Your task to perform on an android device: Search for seafood restaurants on Google Maps Image 0: 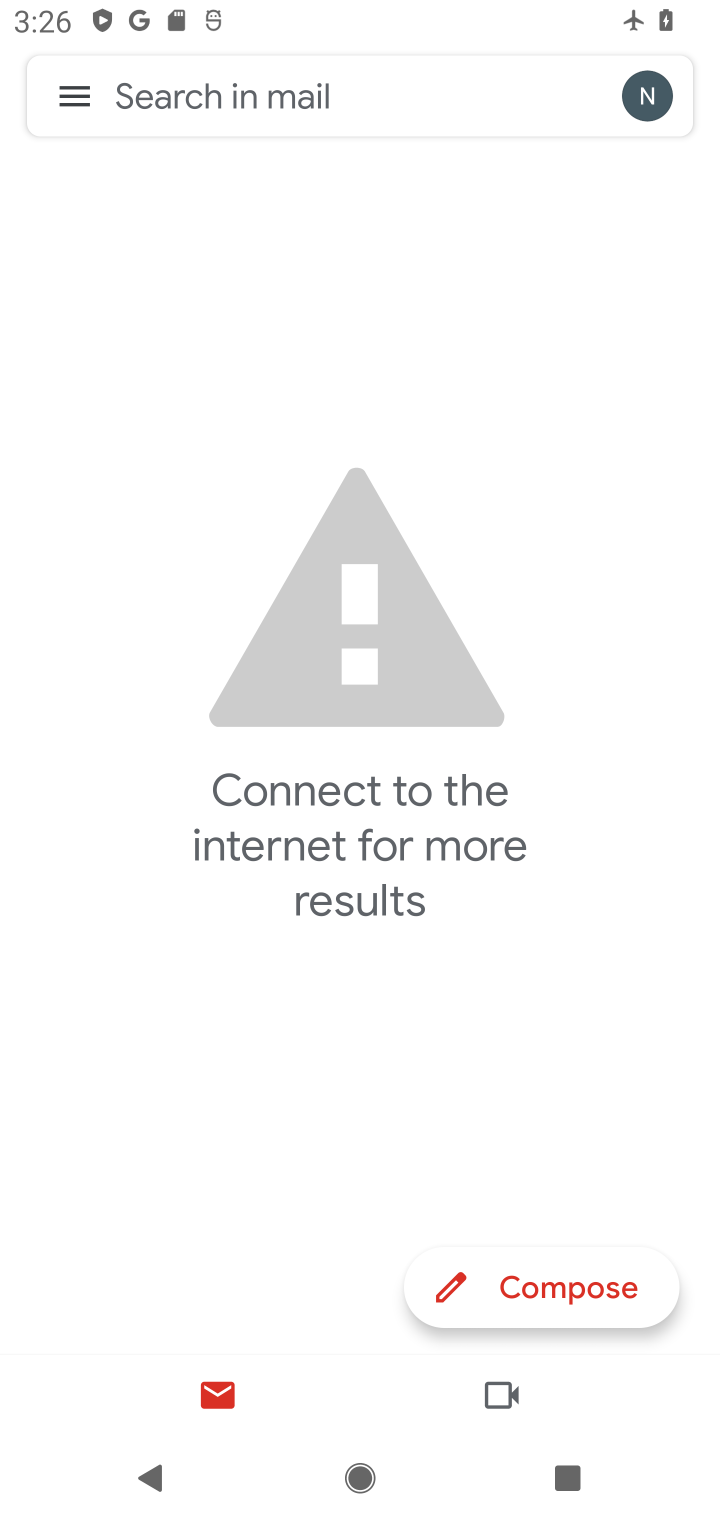
Step 0: press home button
Your task to perform on an android device: Search for seafood restaurants on Google Maps Image 1: 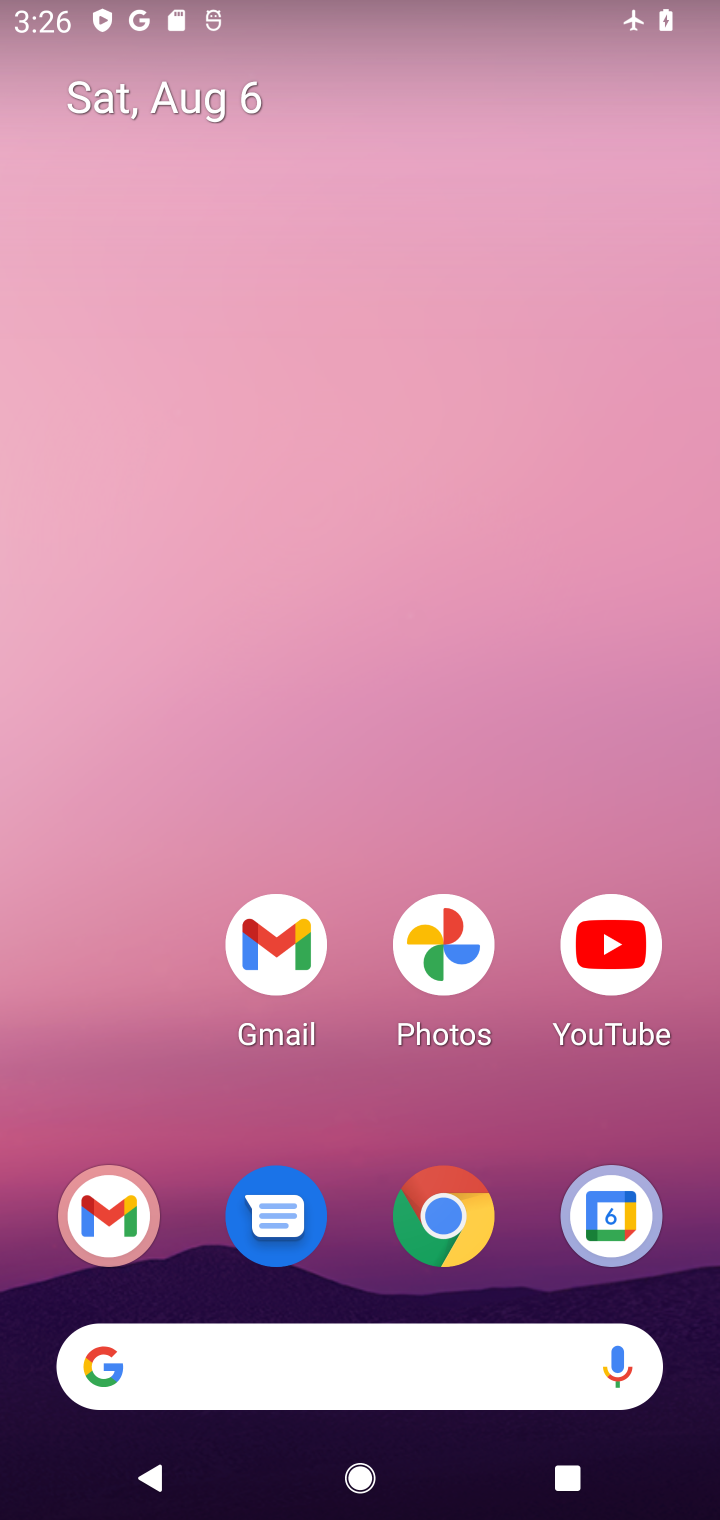
Step 1: drag from (540, 1126) to (499, 222)
Your task to perform on an android device: Search for seafood restaurants on Google Maps Image 2: 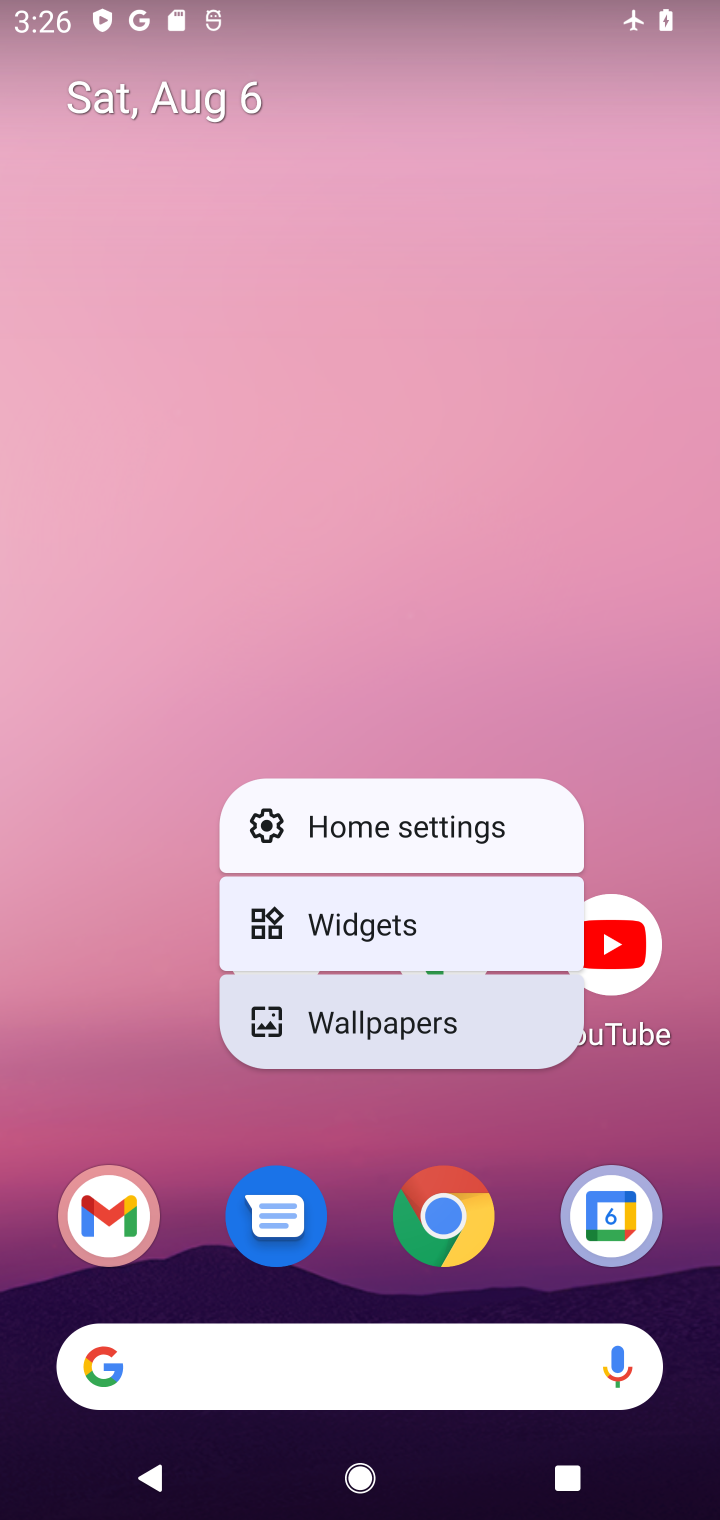
Step 2: drag from (548, 1283) to (582, 460)
Your task to perform on an android device: Search for seafood restaurants on Google Maps Image 3: 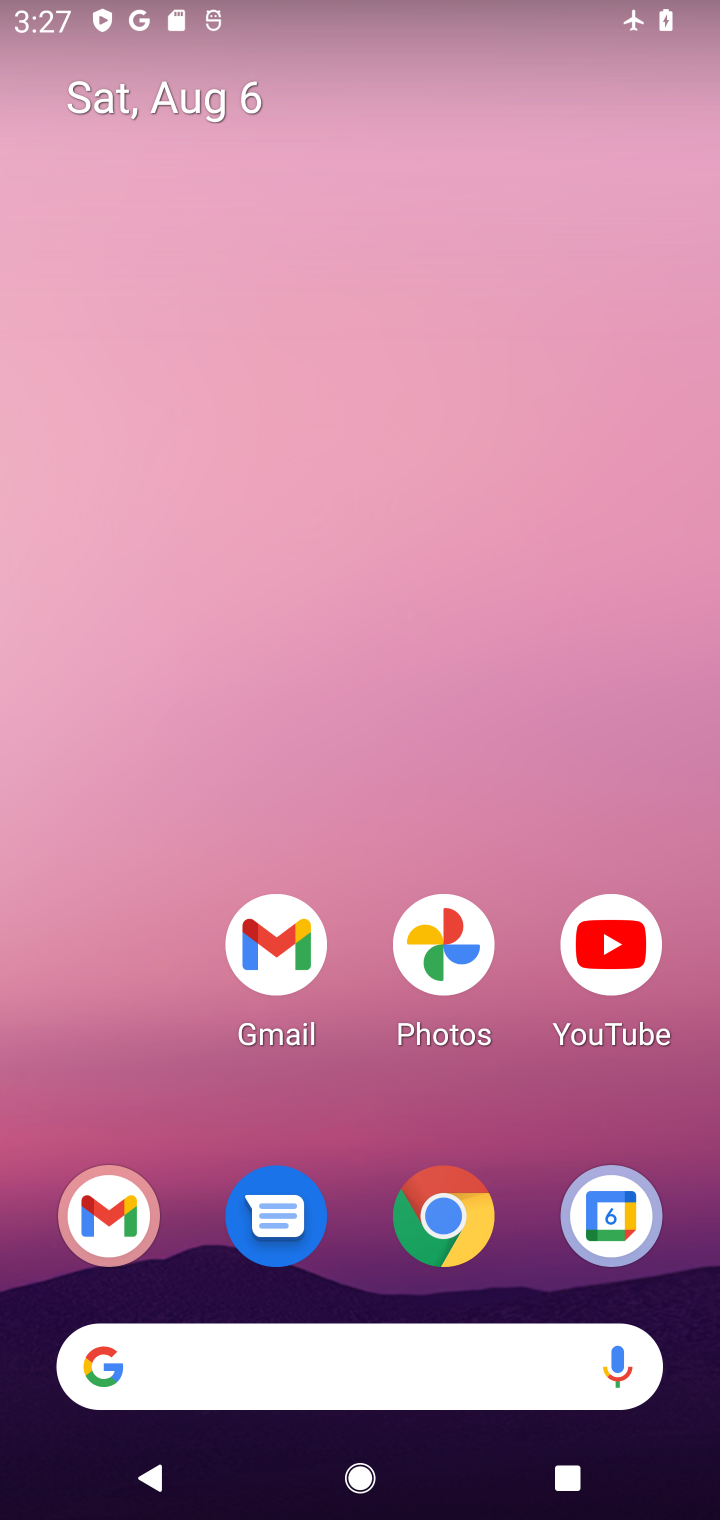
Step 3: drag from (544, 1227) to (535, 400)
Your task to perform on an android device: Search for seafood restaurants on Google Maps Image 4: 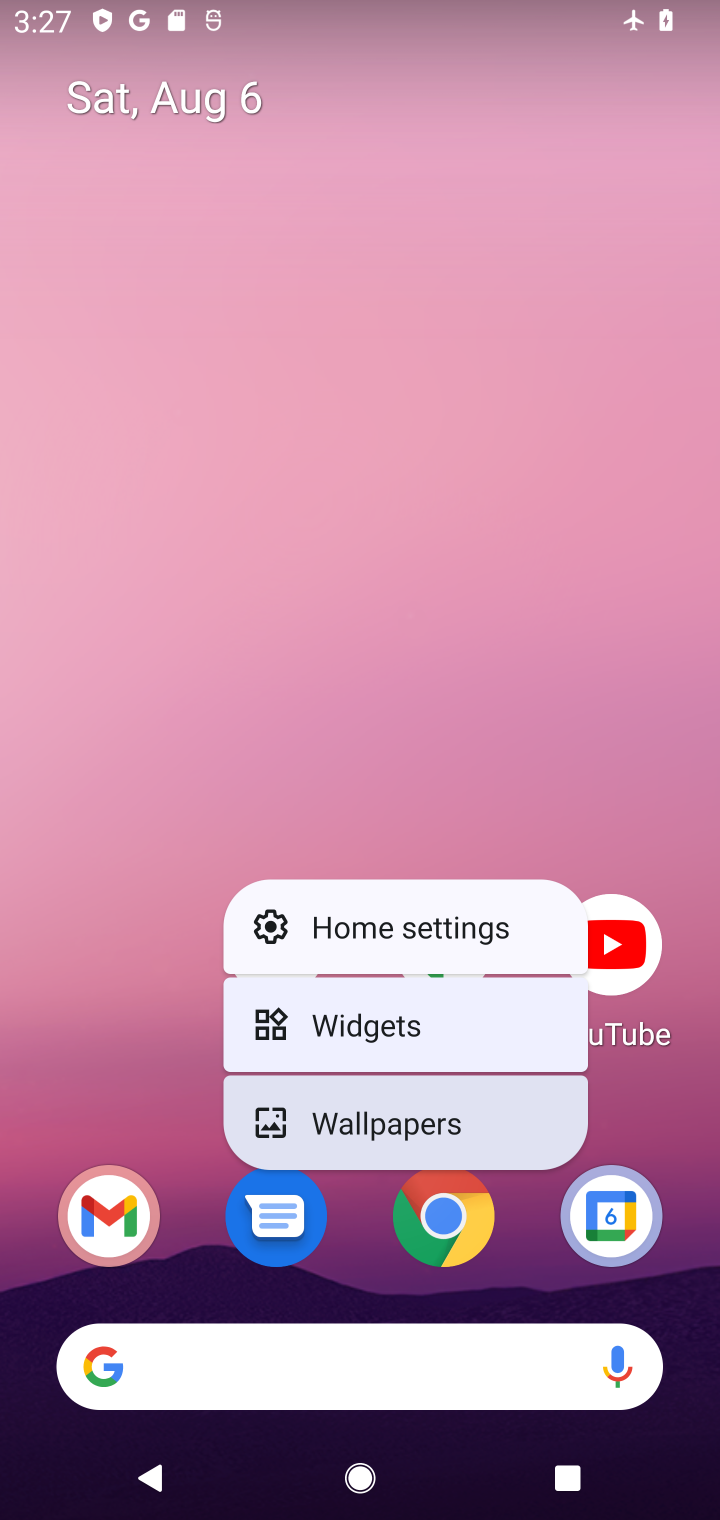
Step 4: drag from (187, 1178) to (152, 240)
Your task to perform on an android device: Search for seafood restaurants on Google Maps Image 5: 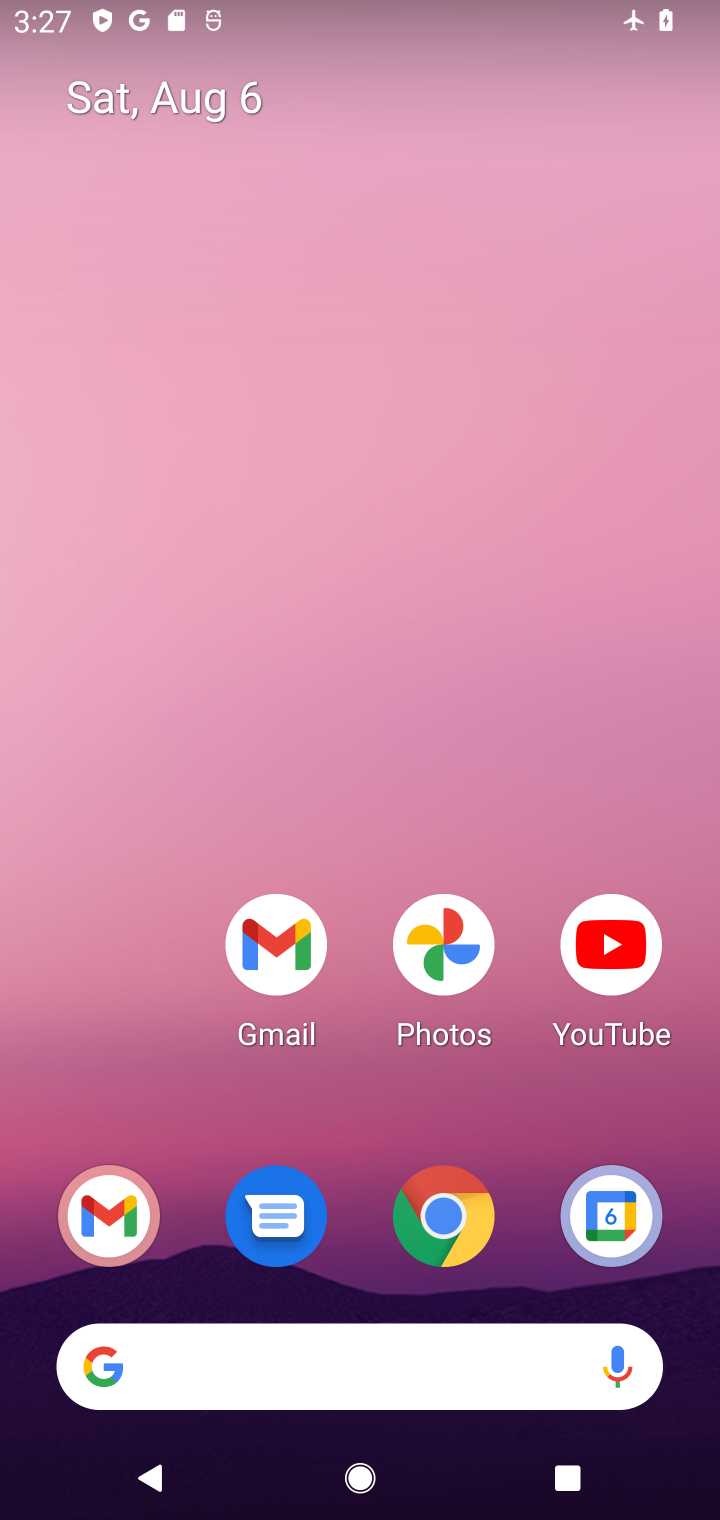
Step 5: drag from (357, 1151) to (339, 337)
Your task to perform on an android device: Search for seafood restaurants on Google Maps Image 6: 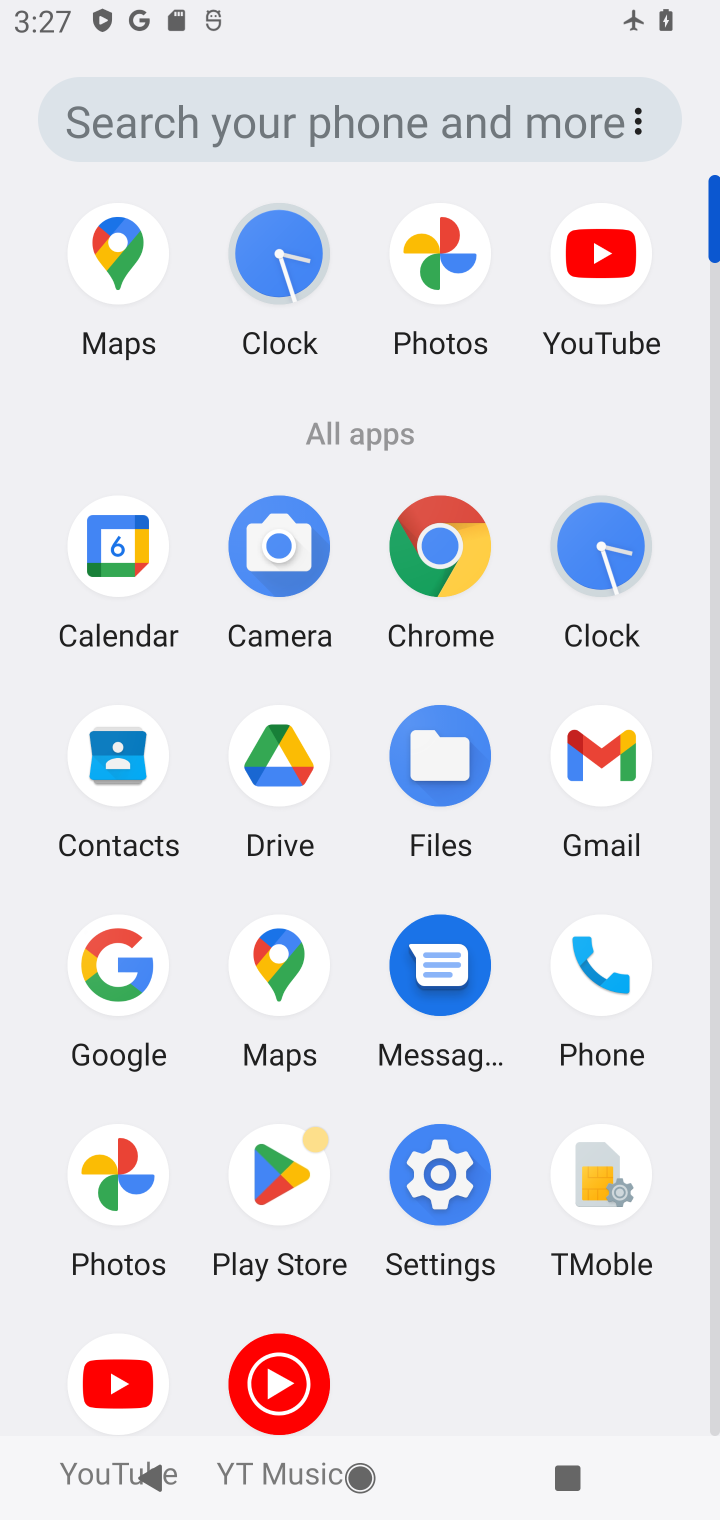
Step 6: click (104, 252)
Your task to perform on an android device: Search for seafood restaurants on Google Maps Image 7: 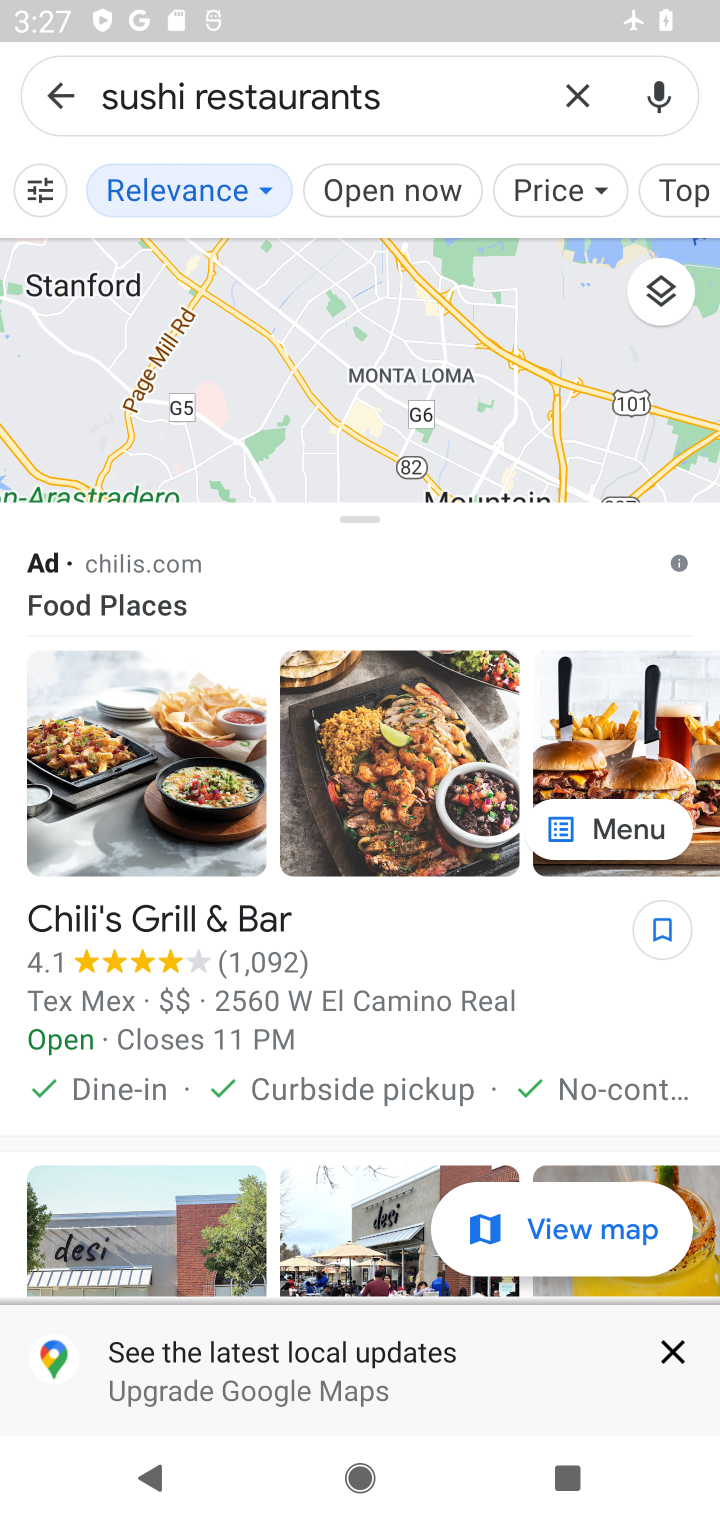
Step 7: click (571, 101)
Your task to perform on an android device: Search for seafood restaurants on Google Maps Image 8: 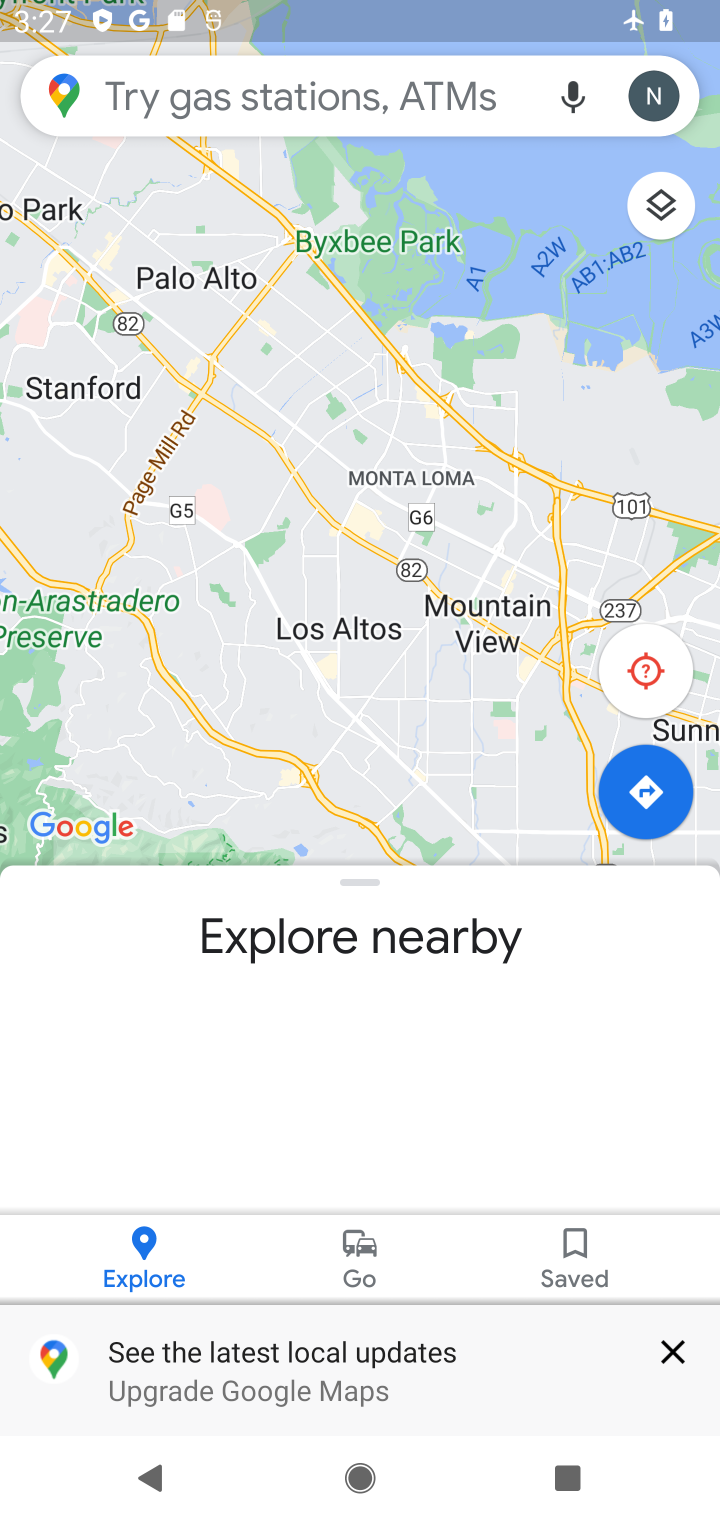
Step 8: click (420, 124)
Your task to perform on an android device: Search for seafood restaurants on Google Maps Image 9: 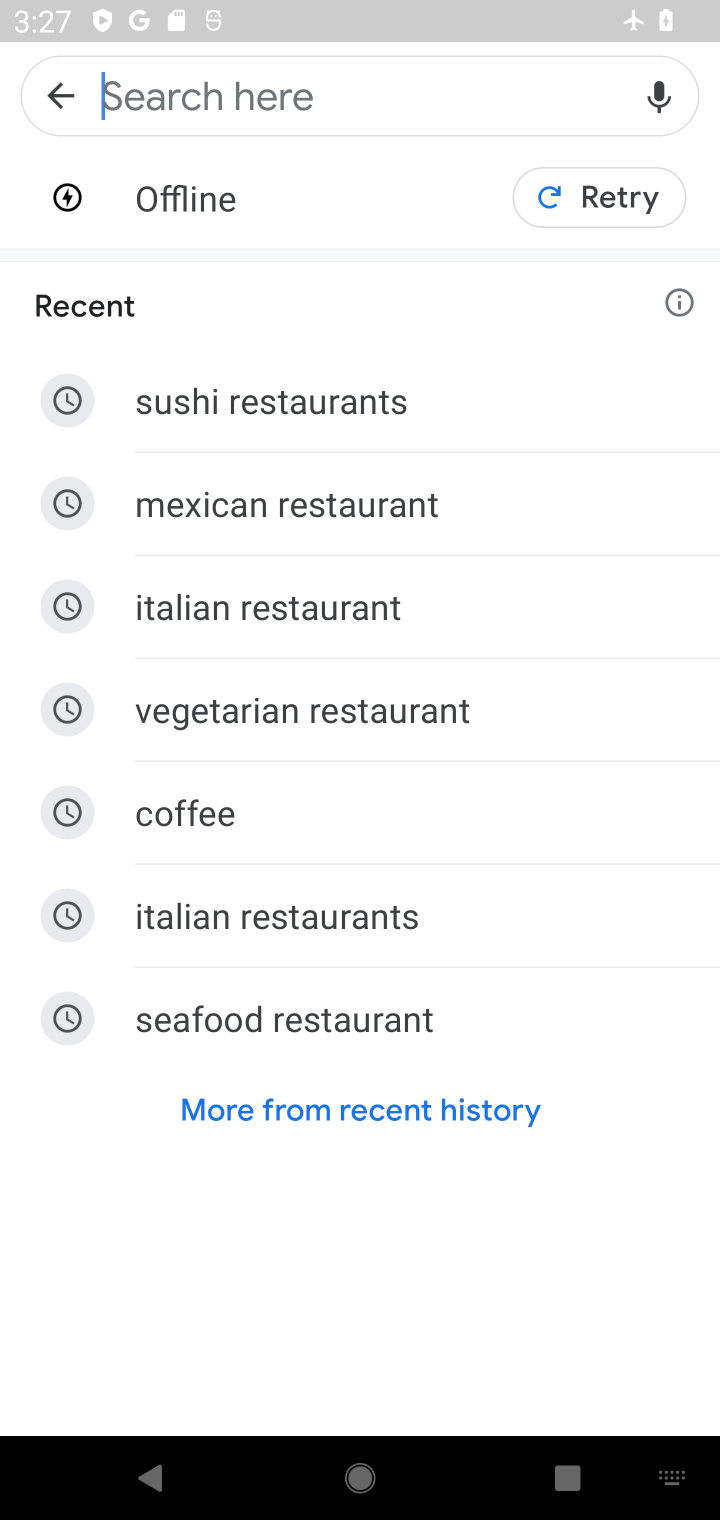
Step 9: click (312, 1044)
Your task to perform on an android device: Search for seafood restaurants on Google Maps Image 10: 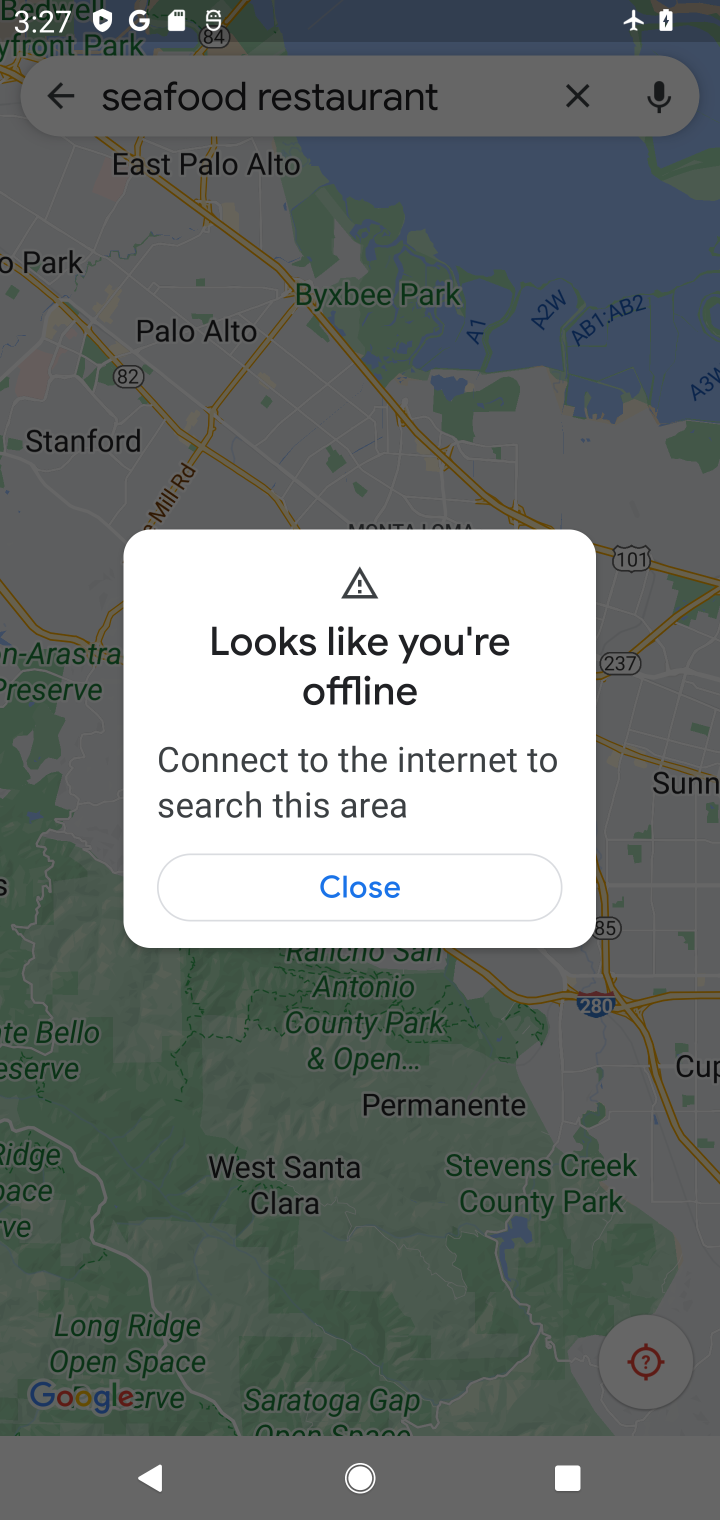
Step 10: click (344, 904)
Your task to perform on an android device: Search for seafood restaurants on Google Maps Image 11: 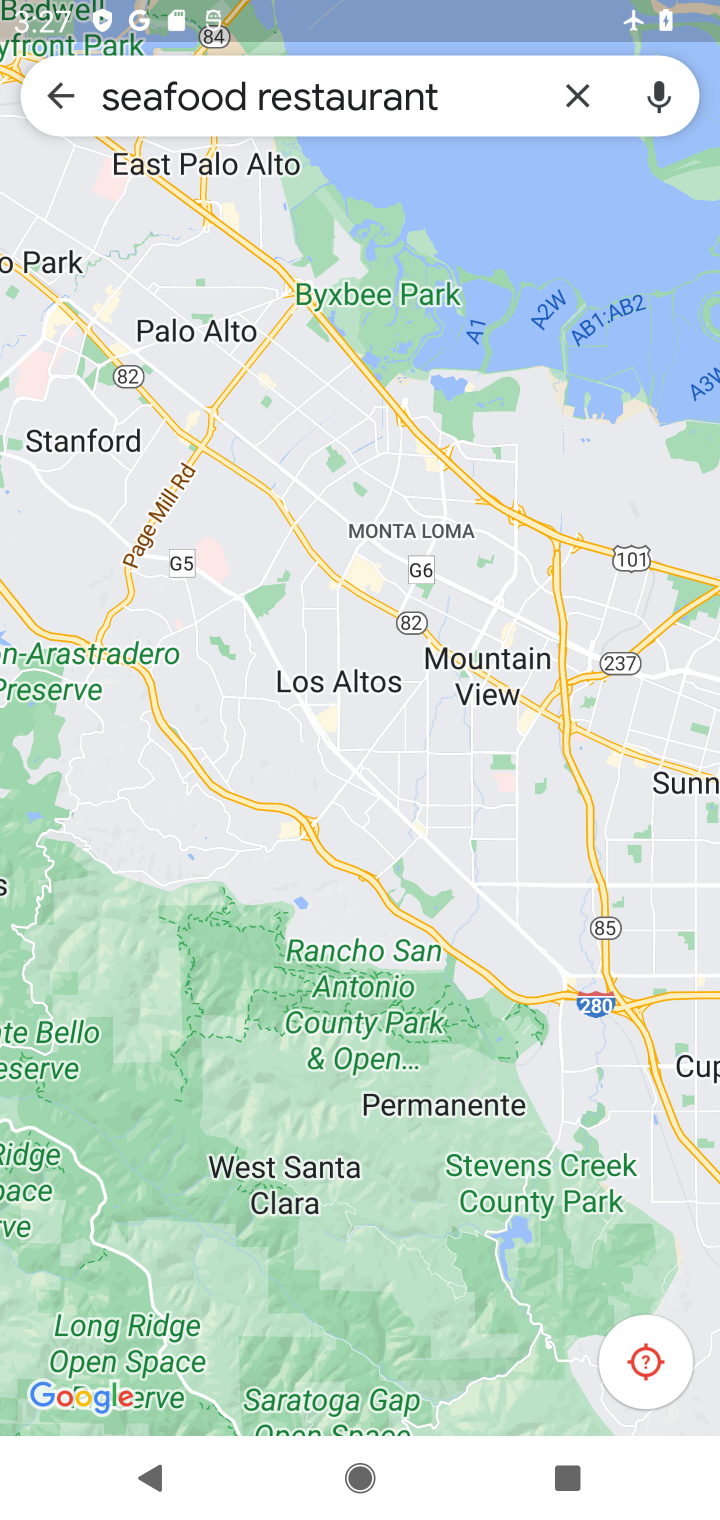
Step 11: task complete